Your task to perform on an android device: open app "PUBG MOBILE" (install if not already installed) and enter user name: "phenomenologically@gmail.com" and password: "artillery" Image 0: 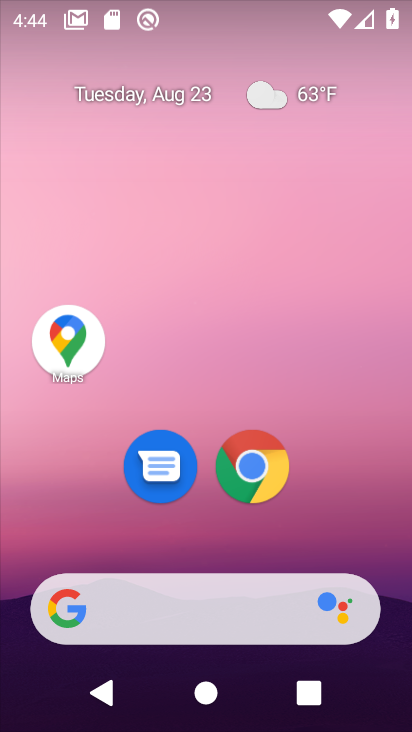
Step 0: drag from (207, 533) to (294, 4)
Your task to perform on an android device: open app "PUBG MOBILE" (install if not already installed) and enter user name: "phenomenologically@gmail.com" and password: "artillery" Image 1: 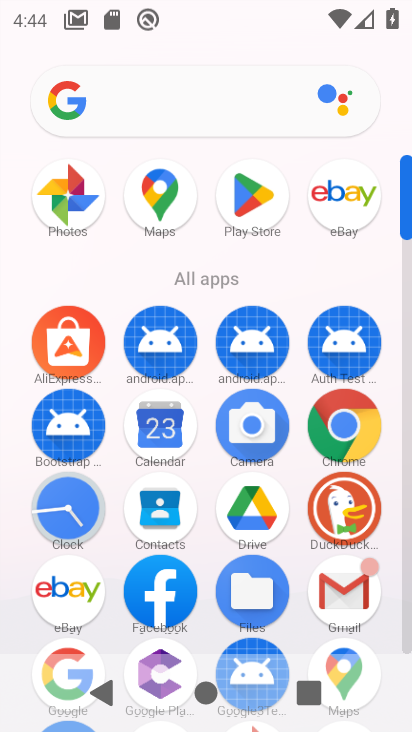
Step 1: click (254, 216)
Your task to perform on an android device: open app "PUBG MOBILE" (install if not already installed) and enter user name: "phenomenologically@gmail.com" and password: "artillery" Image 2: 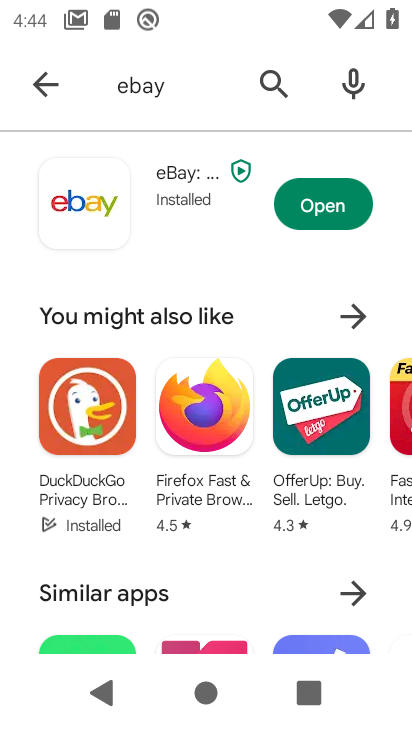
Step 2: click (171, 86)
Your task to perform on an android device: open app "PUBG MOBILE" (install if not already installed) and enter user name: "phenomenologically@gmail.com" and password: "artillery" Image 3: 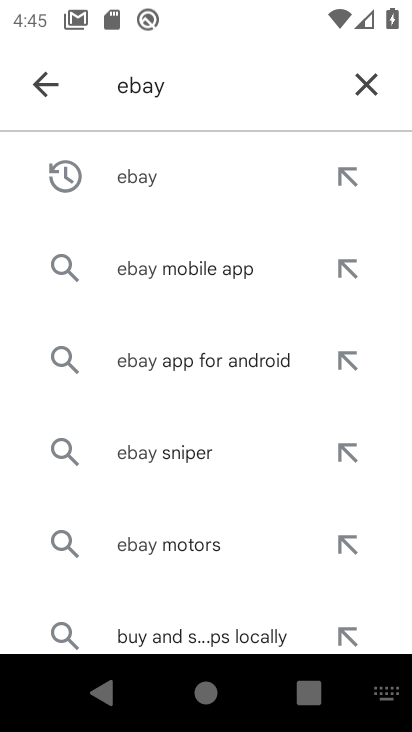
Step 3: click (367, 78)
Your task to perform on an android device: open app "PUBG MOBILE" (install if not already installed) and enter user name: "phenomenologically@gmail.com" and password: "artillery" Image 4: 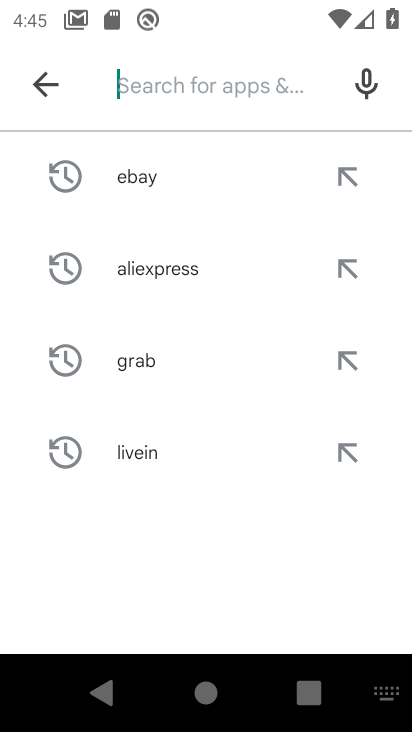
Step 4: type "PUBG mobile"
Your task to perform on an android device: open app "PUBG MOBILE" (install if not already installed) and enter user name: "phenomenologically@gmail.com" and password: "artillery" Image 5: 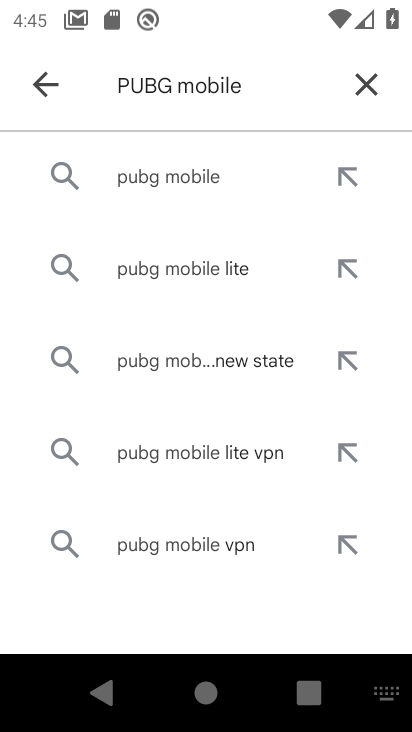
Step 5: click (172, 192)
Your task to perform on an android device: open app "PUBG MOBILE" (install if not already installed) and enter user name: "phenomenologically@gmail.com" and password: "artillery" Image 6: 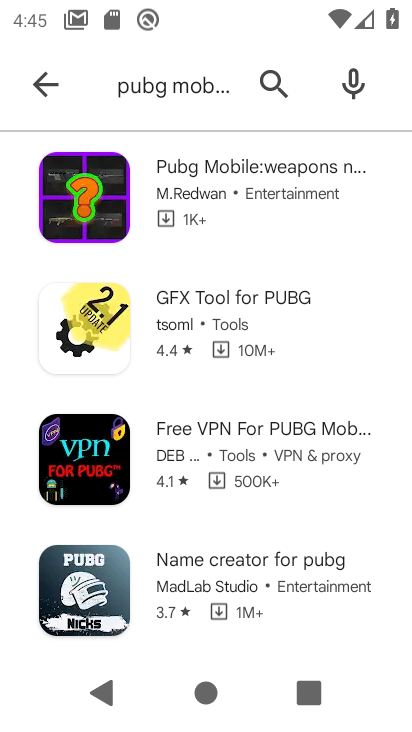
Step 6: task complete